Your task to perform on an android device: turn notification dots off Image 0: 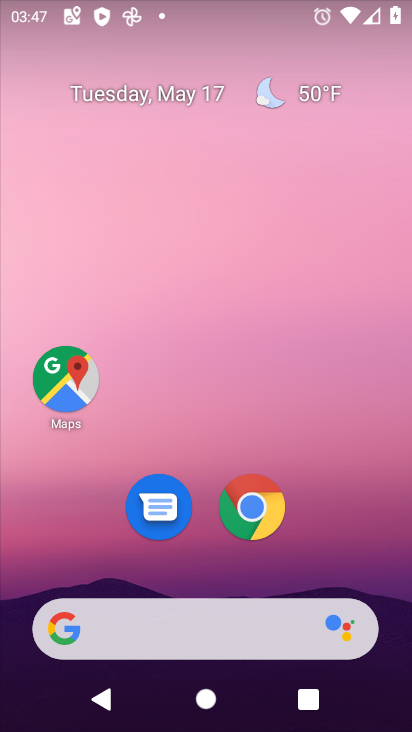
Step 0: drag from (348, 538) to (294, 34)
Your task to perform on an android device: turn notification dots off Image 1: 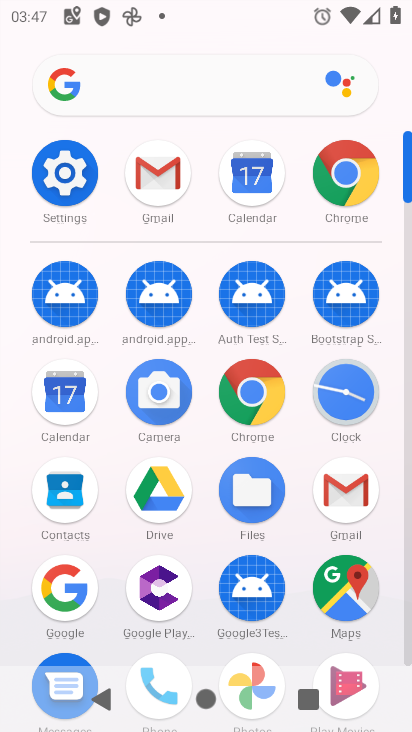
Step 1: click (74, 162)
Your task to perform on an android device: turn notification dots off Image 2: 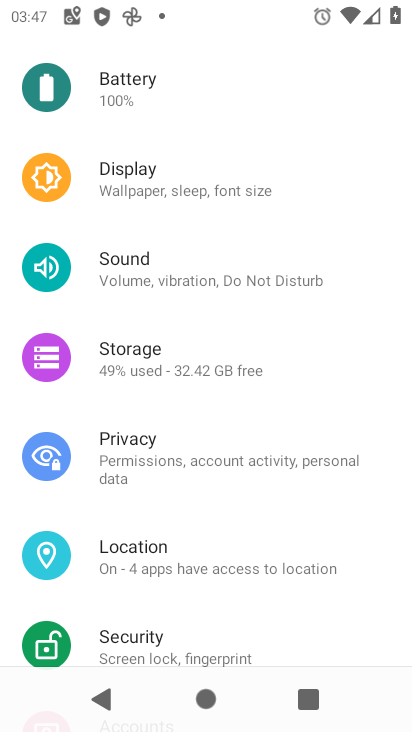
Step 2: drag from (264, 125) to (162, 636)
Your task to perform on an android device: turn notification dots off Image 3: 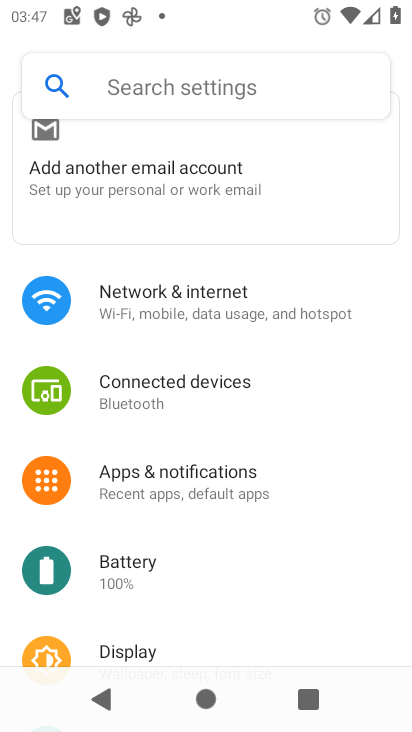
Step 3: click (176, 468)
Your task to perform on an android device: turn notification dots off Image 4: 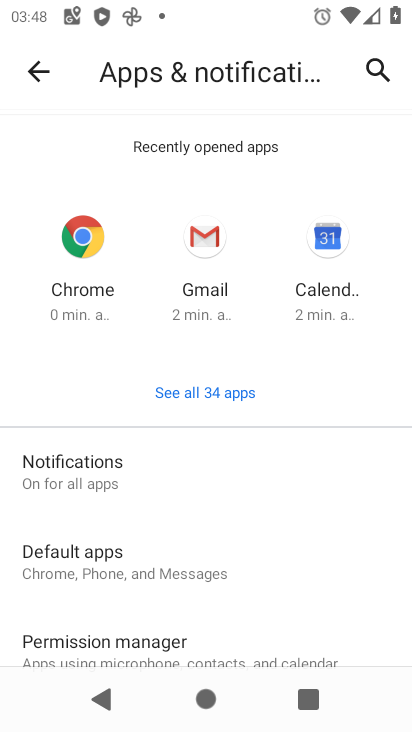
Step 4: click (229, 475)
Your task to perform on an android device: turn notification dots off Image 5: 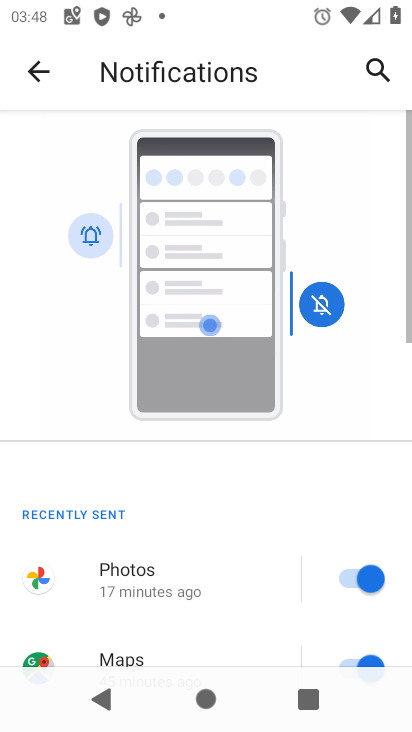
Step 5: drag from (255, 600) to (253, 90)
Your task to perform on an android device: turn notification dots off Image 6: 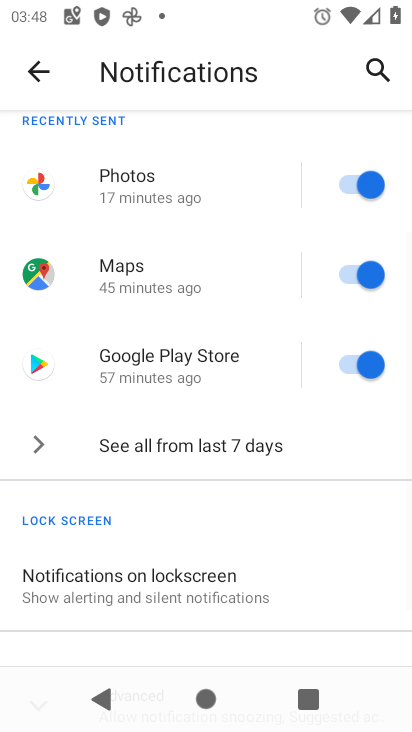
Step 6: drag from (228, 584) to (233, 276)
Your task to perform on an android device: turn notification dots off Image 7: 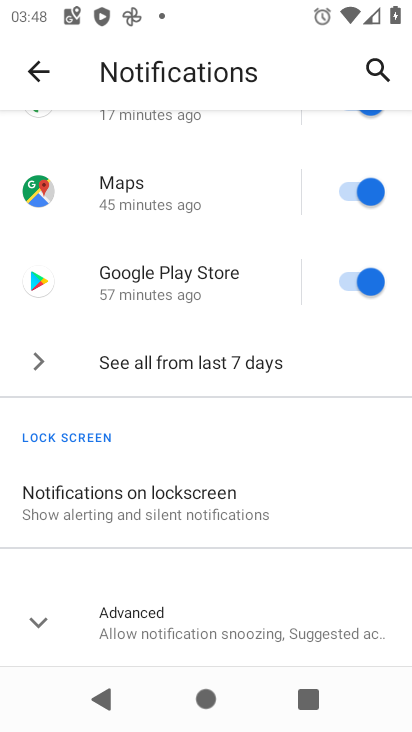
Step 7: click (178, 636)
Your task to perform on an android device: turn notification dots off Image 8: 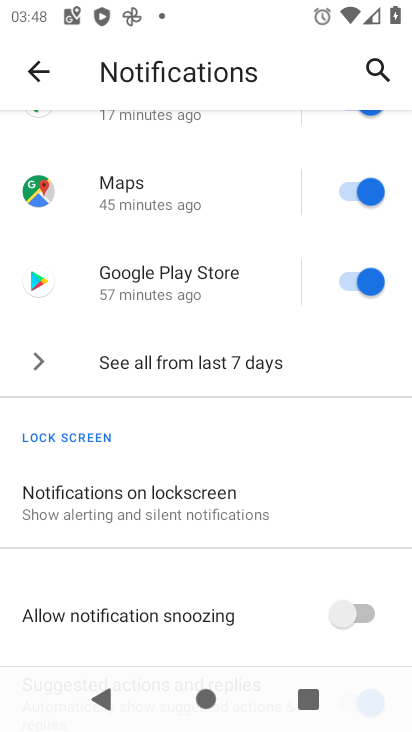
Step 8: drag from (203, 581) to (230, 120)
Your task to perform on an android device: turn notification dots off Image 9: 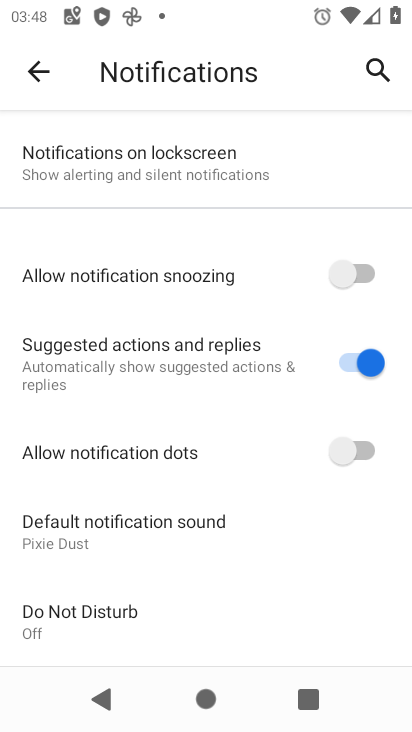
Step 9: click (359, 452)
Your task to perform on an android device: turn notification dots off Image 10: 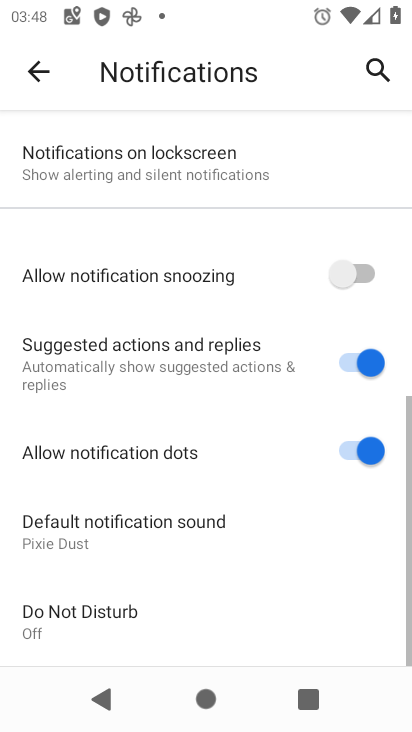
Step 10: click (359, 452)
Your task to perform on an android device: turn notification dots off Image 11: 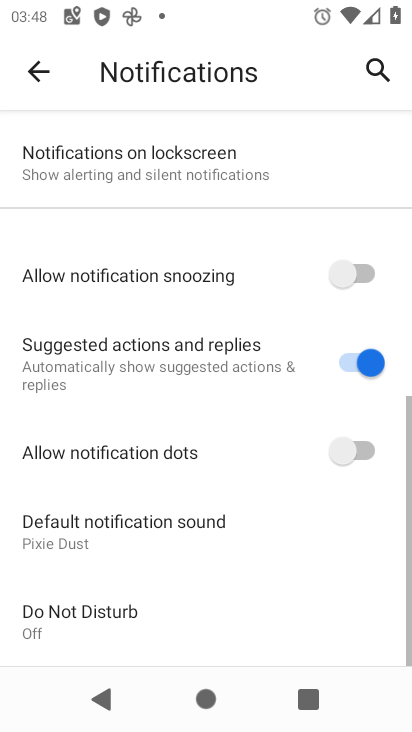
Step 11: task complete